Your task to perform on an android device: turn notification dots on Image 0: 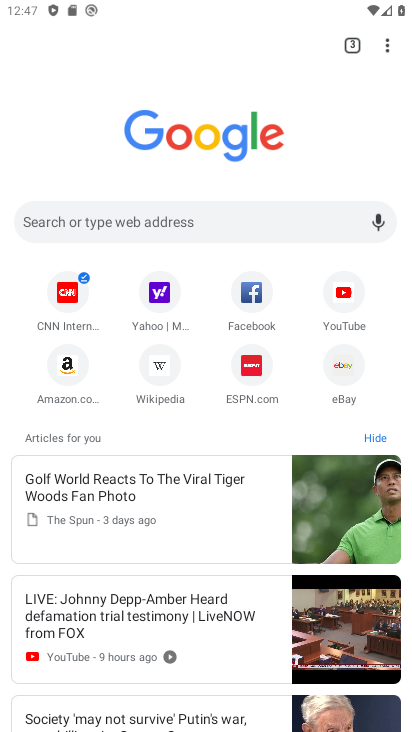
Step 0: press back button
Your task to perform on an android device: turn notification dots on Image 1: 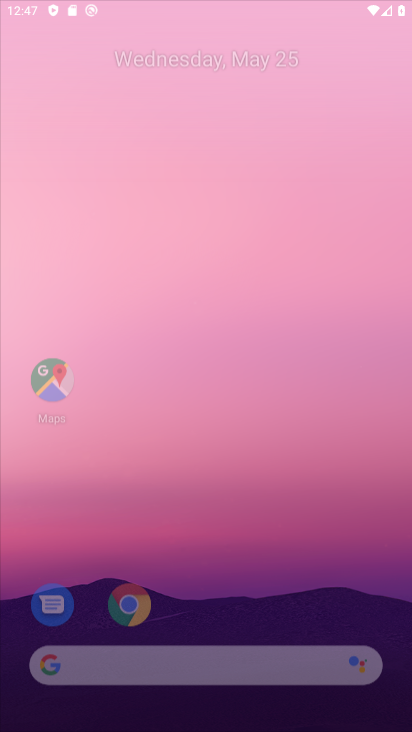
Step 1: click (350, 462)
Your task to perform on an android device: turn notification dots on Image 2: 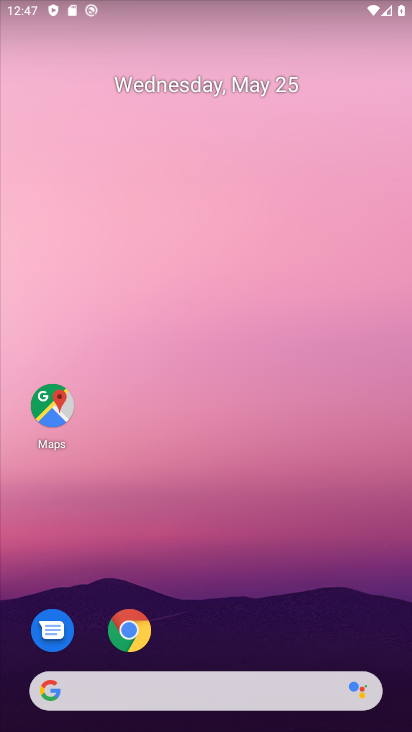
Step 2: drag from (297, 688) to (207, 135)
Your task to perform on an android device: turn notification dots on Image 3: 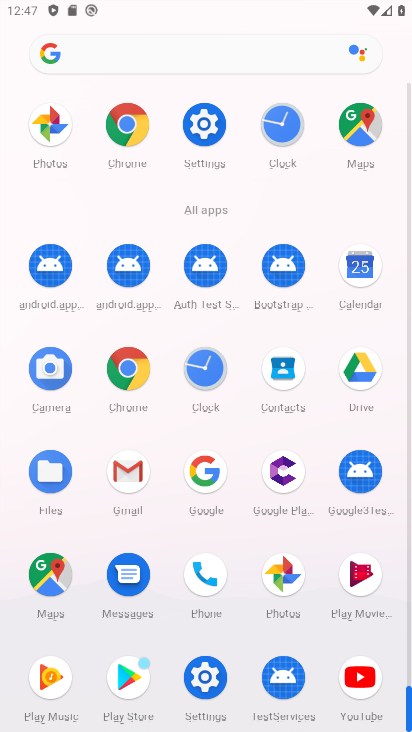
Step 3: click (212, 119)
Your task to perform on an android device: turn notification dots on Image 4: 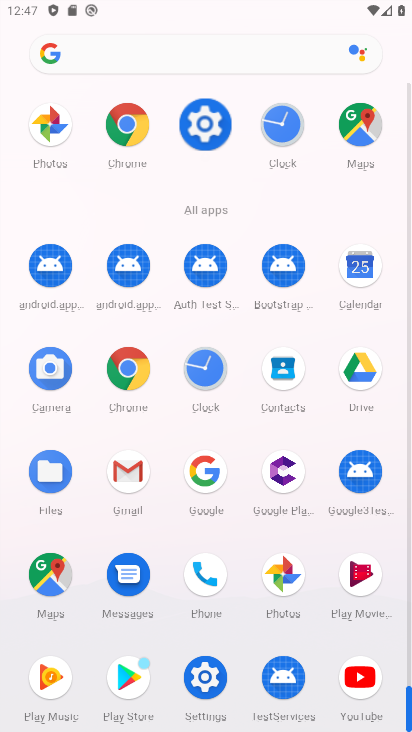
Step 4: click (212, 119)
Your task to perform on an android device: turn notification dots on Image 5: 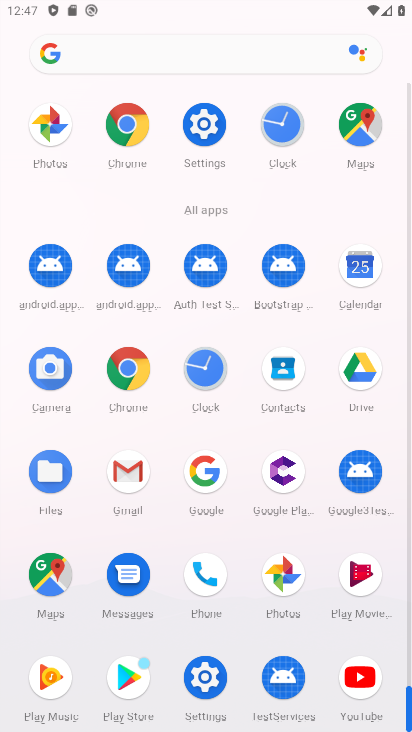
Step 5: click (212, 120)
Your task to perform on an android device: turn notification dots on Image 6: 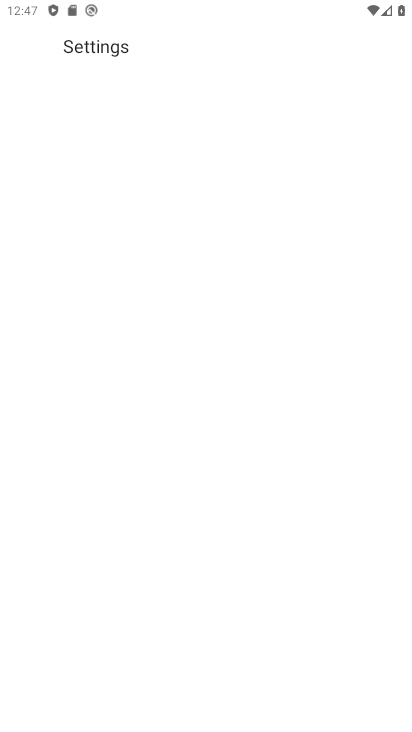
Step 6: click (212, 120)
Your task to perform on an android device: turn notification dots on Image 7: 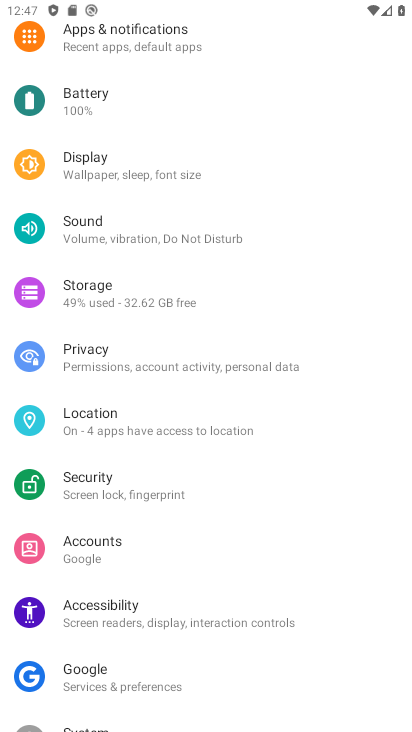
Step 7: drag from (158, 532) to (89, 178)
Your task to perform on an android device: turn notification dots on Image 8: 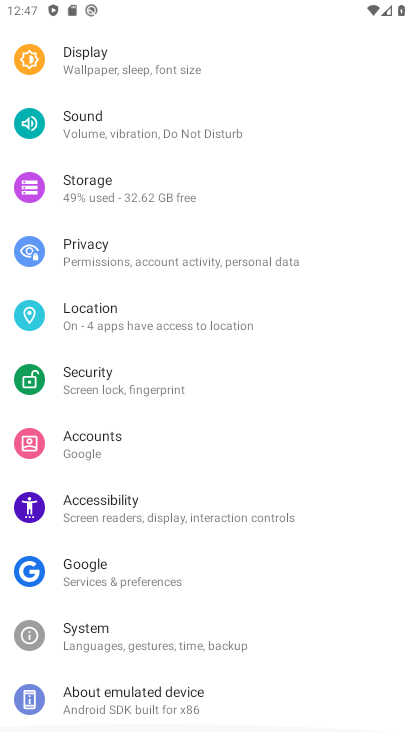
Step 8: drag from (143, 491) to (154, 99)
Your task to perform on an android device: turn notification dots on Image 9: 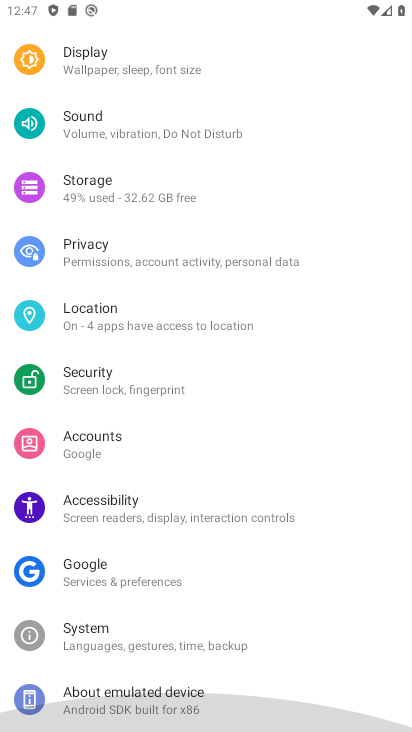
Step 9: drag from (126, 453) to (119, 149)
Your task to perform on an android device: turn notification dots on Image 10: 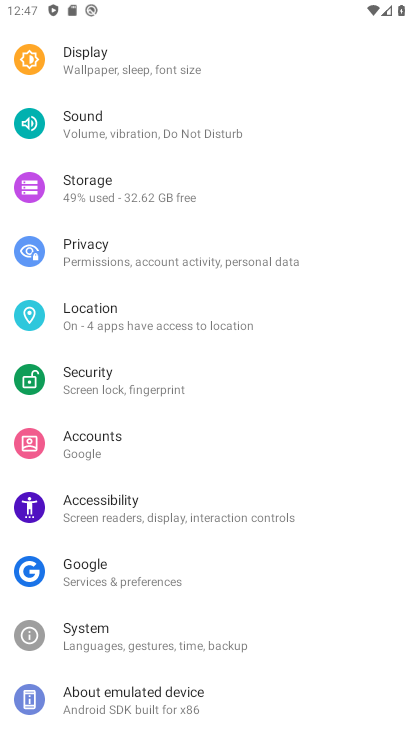
Step 10: drag from (121, 180) to (185, 566)
Your task to perform on an android device: turn notification dots on Image 11: 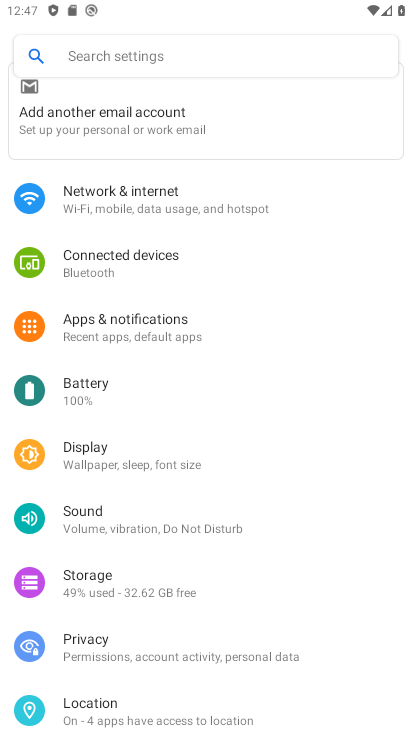
Step 11: drag from (184, 389) to (213, 453)
Your task to perform on an android device: turn notification dots on Image 12: 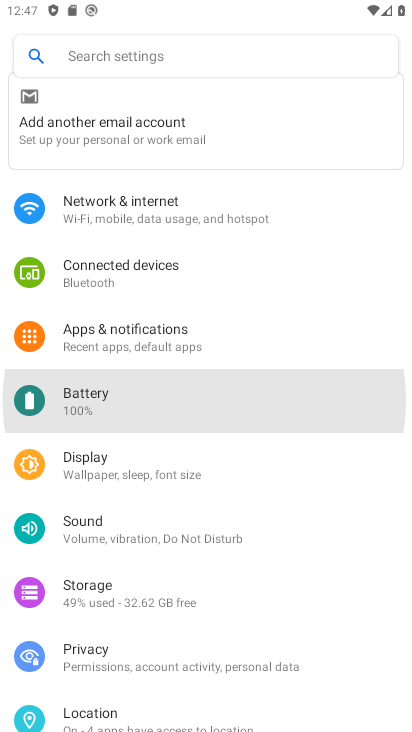
Step 12: drag from (147, 114) to (208, 636)
Your task to perform on an android device: turn notification dots on Image 13: 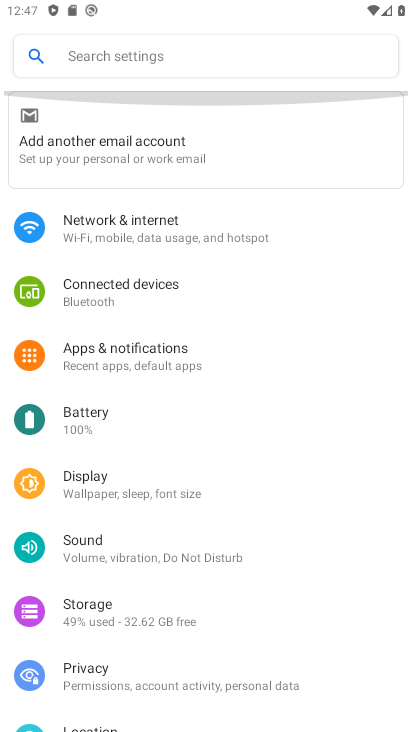
Step 13: drag from (135, 266) to (146, 582)
Your task to perform on an android device: turn notification dots on Image 14: 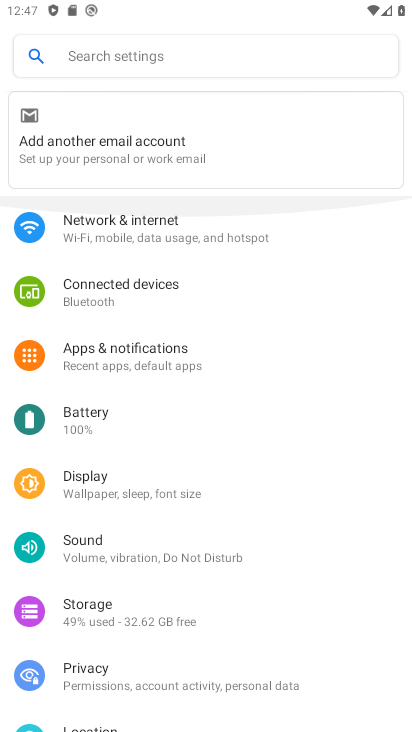
Step 14: drag from (61, 199) to (151, 667)
Your task to perform on an android device: turn notification dots on Image 15: 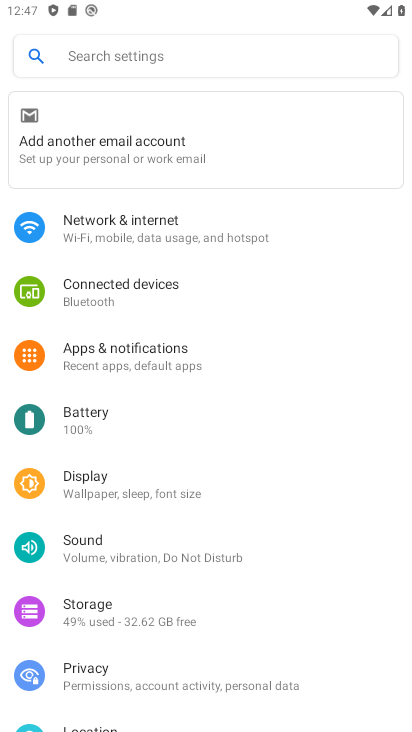
Step 15: click (118, 360)
Your task to perform on an android device: turn notification dots on Image 16: 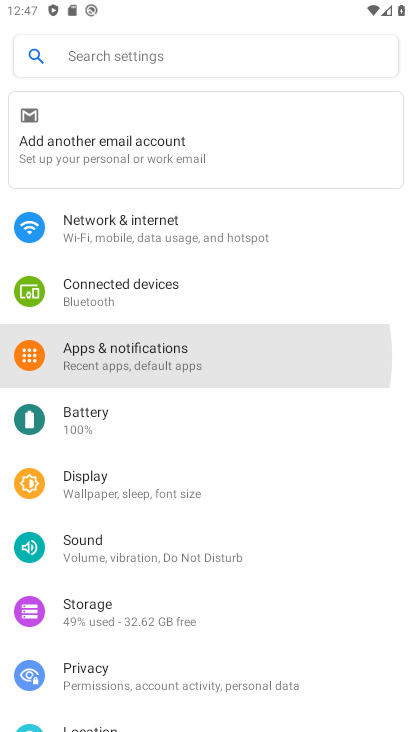
Step 16: click (118, 358)
Your task to perform on an android device: turn notification dots on Image 17: 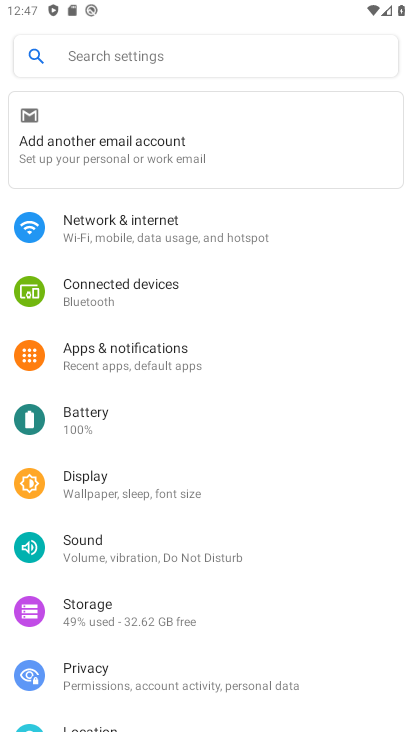
Step 17: click (118, 358)
Your task to perform on an android device: turn notification dots on Image 18: 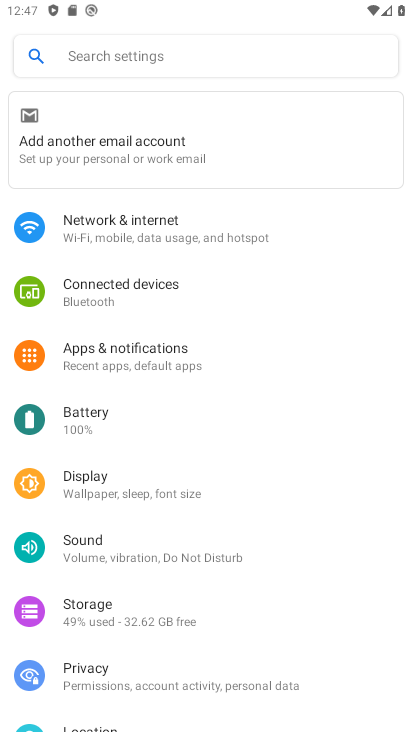
Step 18: click (119, 357)
Your task to perform on an android device: turn notification dots on Image 19: 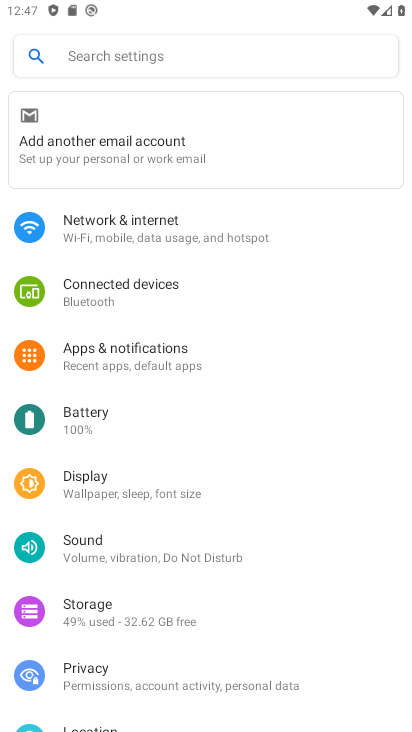
Step 19: click (127, 362)
Your task to perform on an android device: turn notification dots on Image 20: 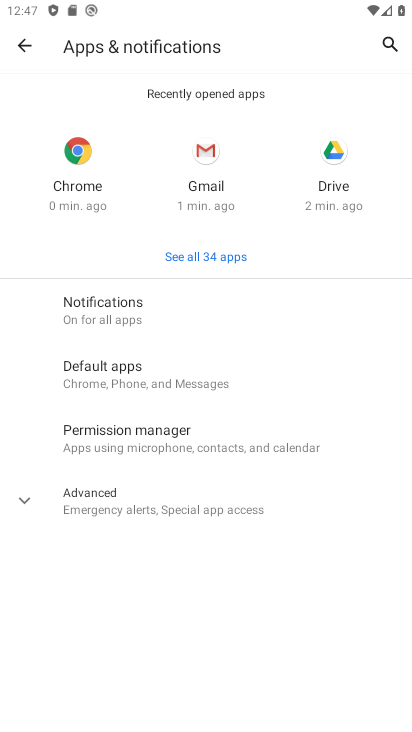
Step 20: click (96, 312)
Your task to perform on an android device: turn notification dots on Image 21: 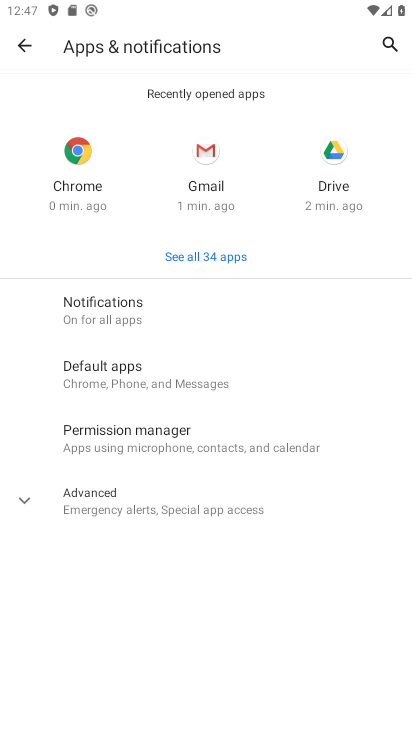
Step 21: click (102, 308)
Your task to perform on an android device: turn notification dots on Image 22: 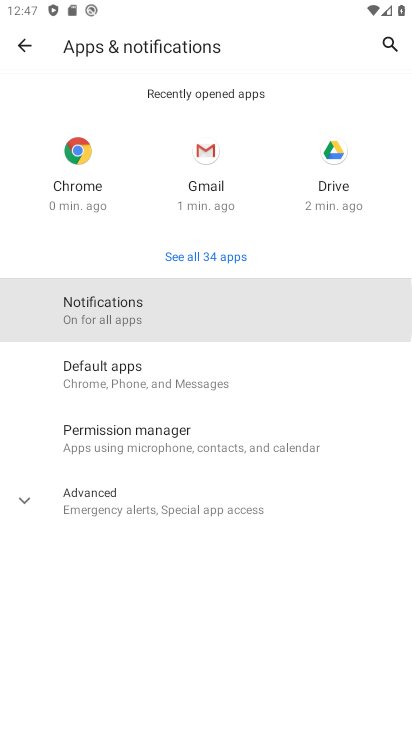
Step 22: click (102, 308)
Your task to perform on an android device: turn notification dots on Image 23: 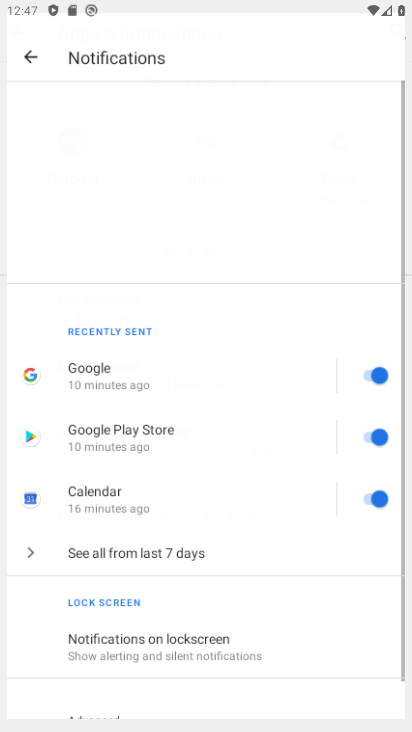
Step 23: click (106, 306)
Your task to perform on an android device: turn notification dots on Image 24: 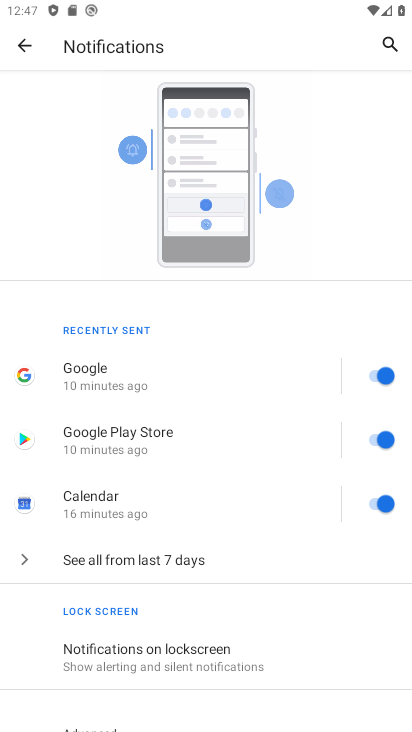
Step 24: drag from (191, 525) to (164, 125)
Your task to perform on an android device: turn notification dots on Image 25: 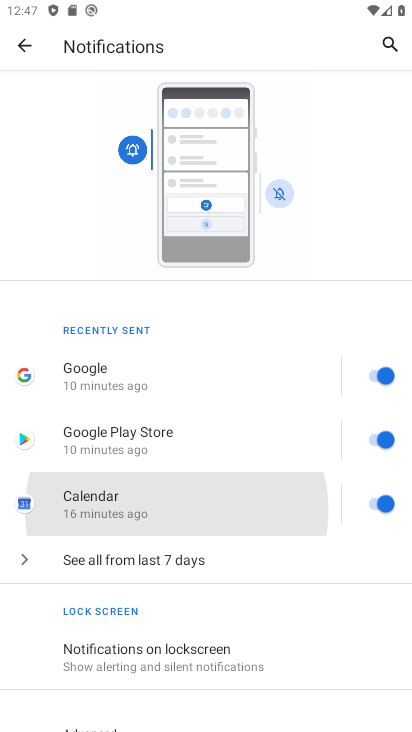
Step 25: drag from (221, 434) to (232, 175)
Your task to perform on an android device: turn notification dots on Image 26: 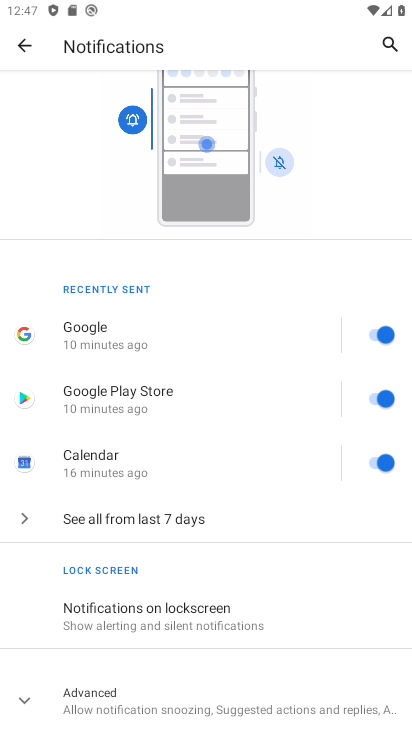
Step 26: click (82, 700)
Your task to perform on an android device: turn notification dots on Image 27: 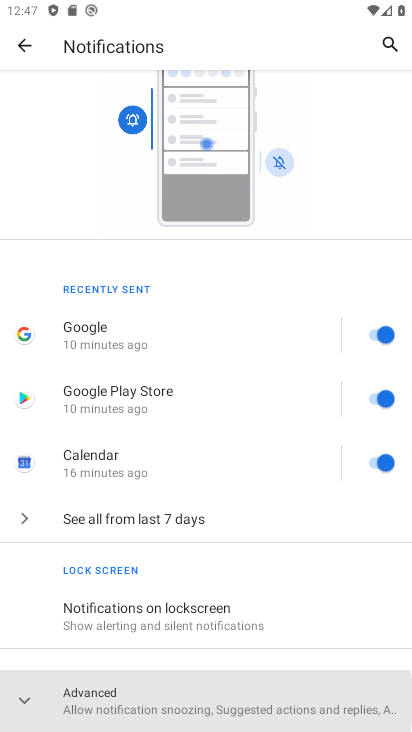
Step 27: click (87, 698)
Your task to perform on an android device: turn notification dots on Image 28: 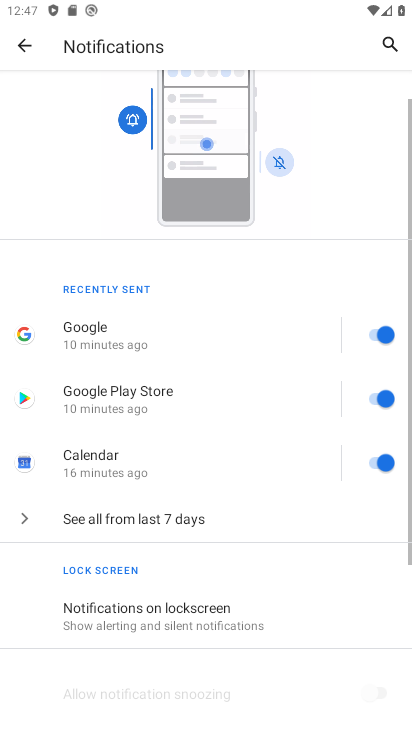
Step 28: click (90, 700)
Your task to perform on an android device: turn notification dots on Image 29: 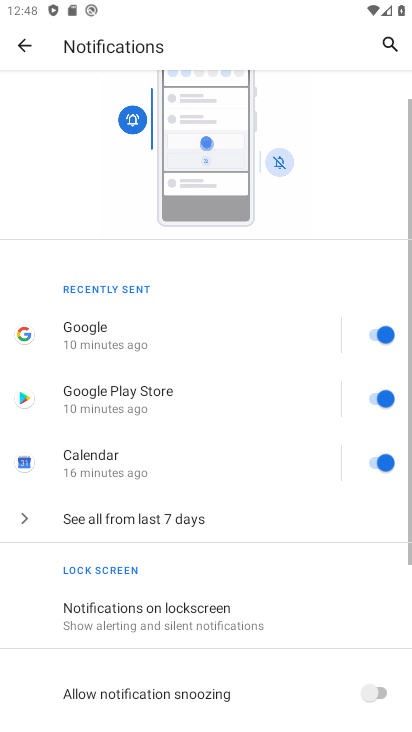
Step 29: click (90, 700)
Your task to perform on an android device: turn notification dots on Image 30: 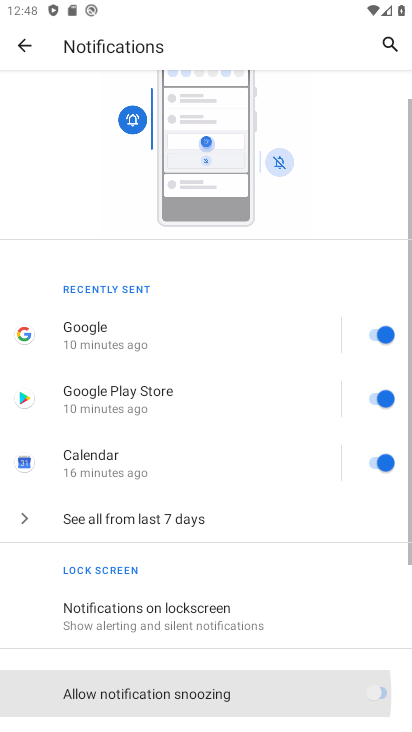
Step 30: click (90, 700)
Your task to perform on an android device: turn notification dots on Image 31: 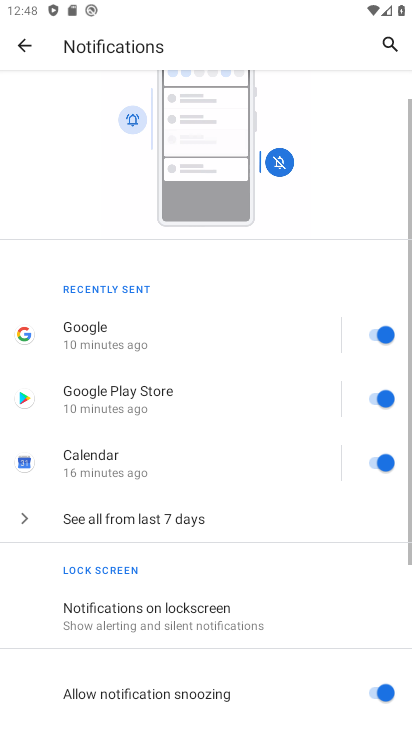
Step 31: task complete